Your task to perform on an android device: open wifi settings Image 0: 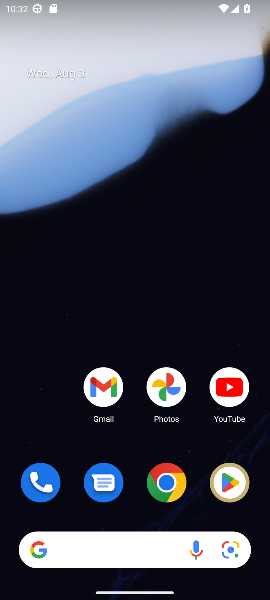
Step 0: click (138, 82)
Your task to perform on an android device: open wifi settings Image 1: 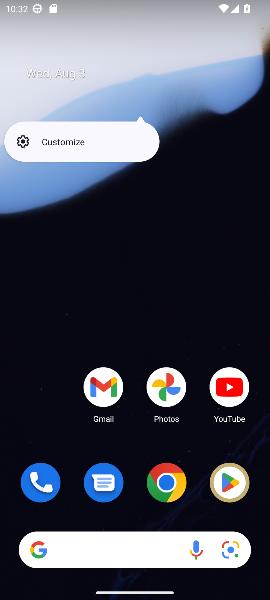
Step 1: task complete